Your task to perform on an android device: Open Google Image 0: 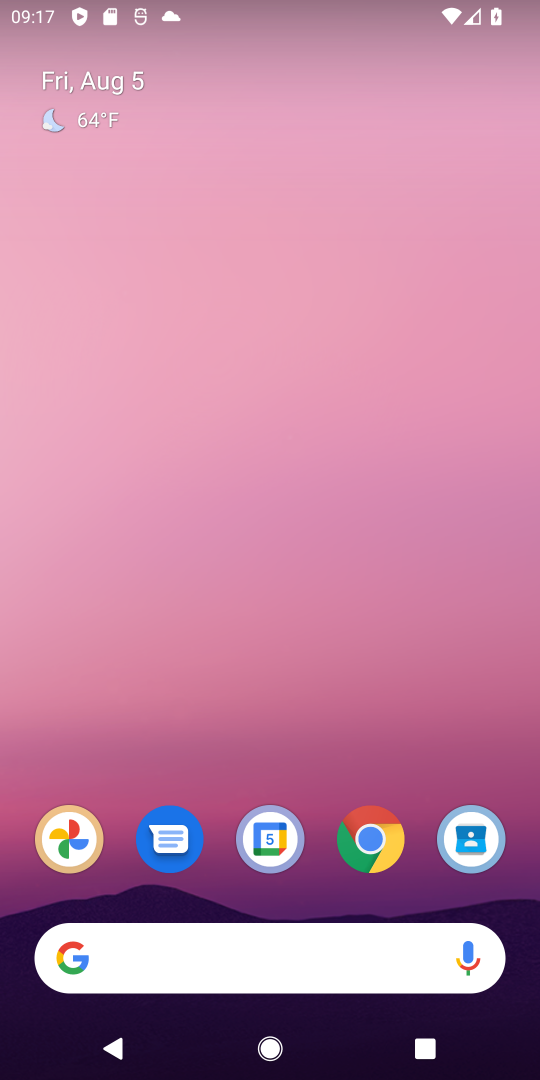
Step 0: drag from (307, 911) to (265, 81)
Your task to perform on an android device: Open Google Image 1: 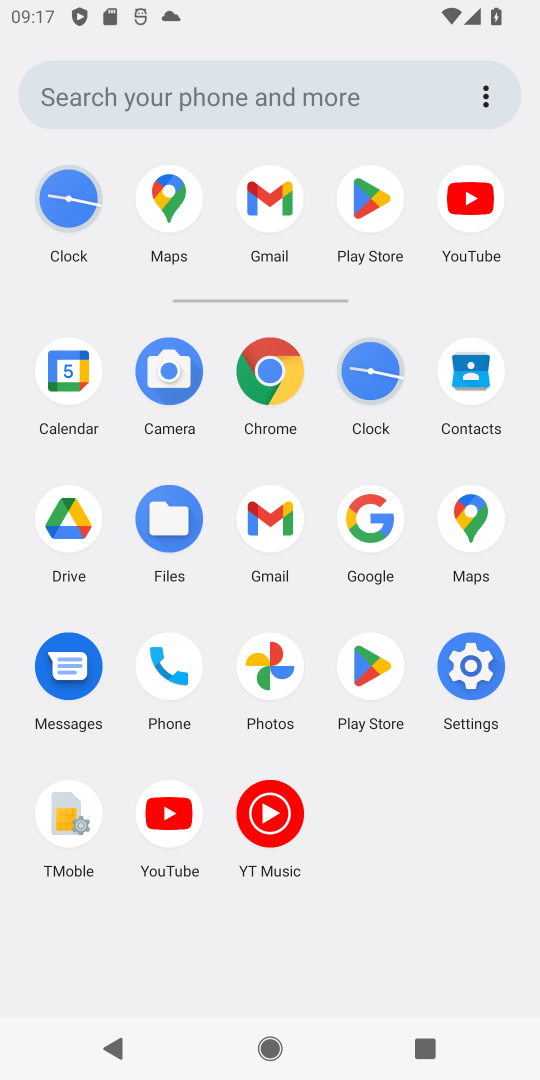
Step 1: click (371, 515)
Your task to perform on an android device: Open Google Image 2: 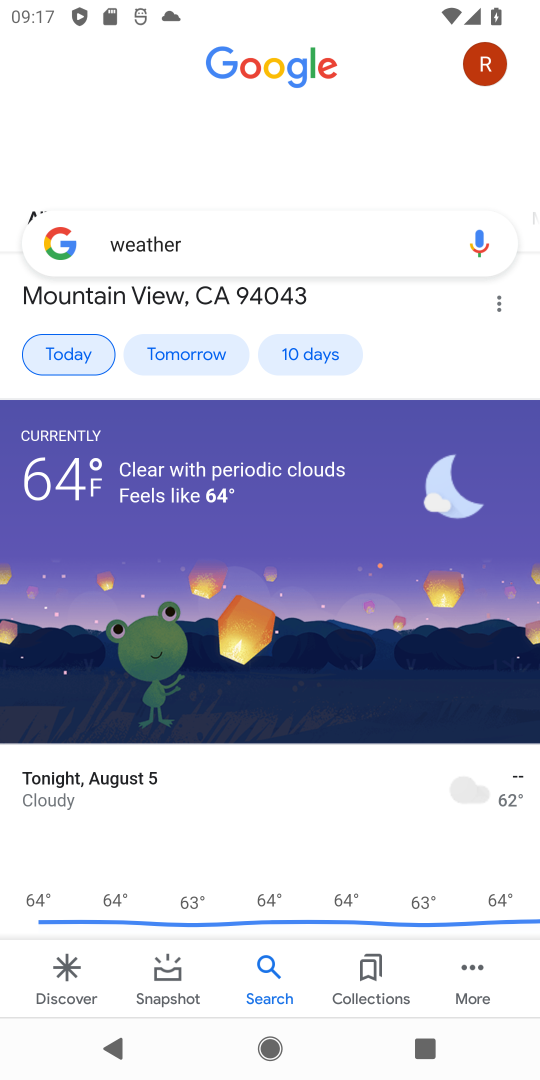
Step 2: task complete